Your task to perform on an android device: search for 2021 honda civic Image 0: 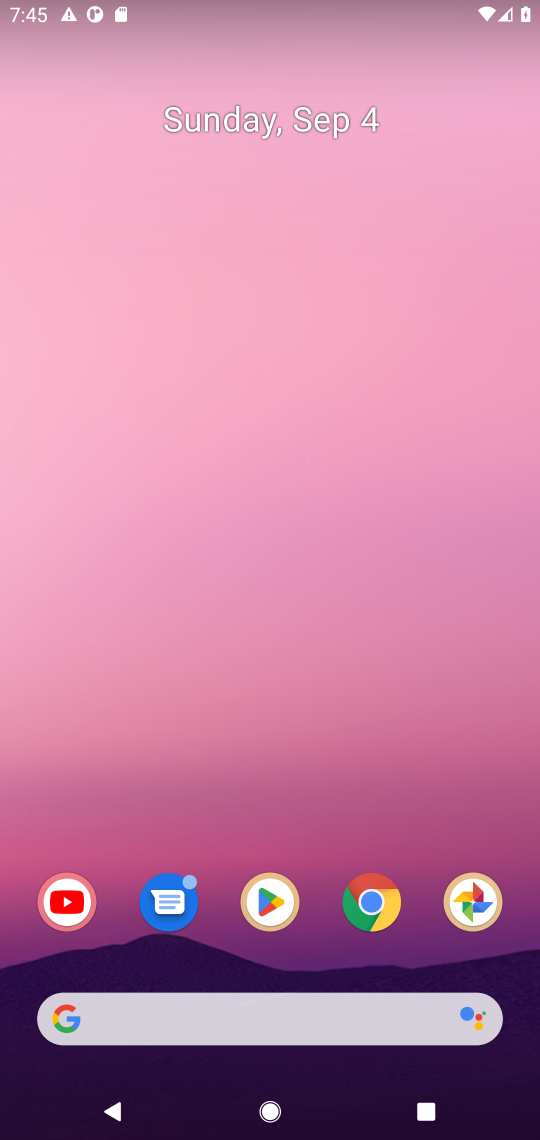
Step 0: click (347, 921)
Your task to perform on an android device: search for 2021 honda civic Image 1: 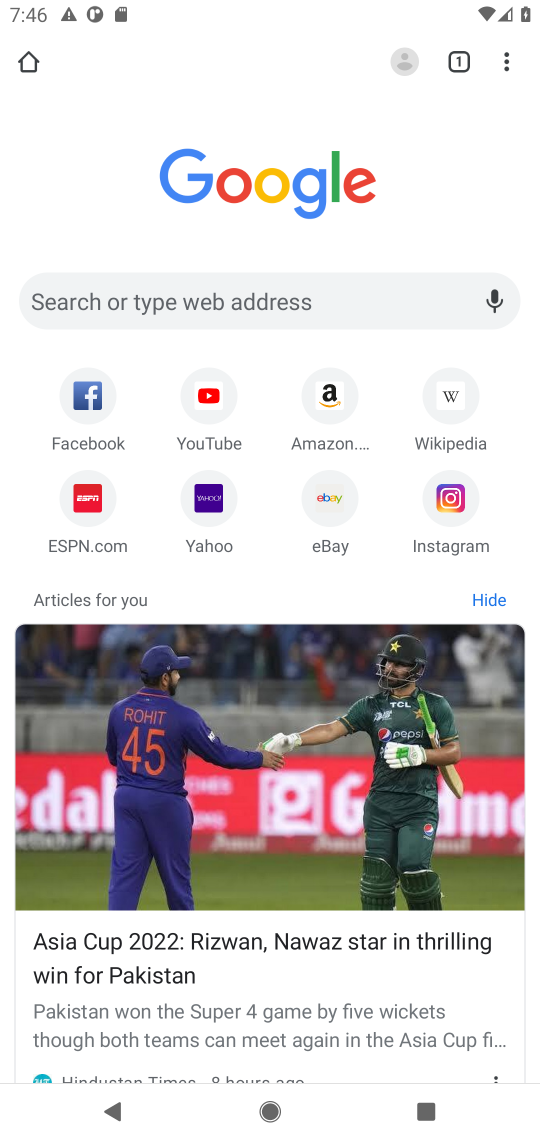
Step 1: click (349, 503)
Your task to perform on an android device: search for 2021 honda civic Image 2: 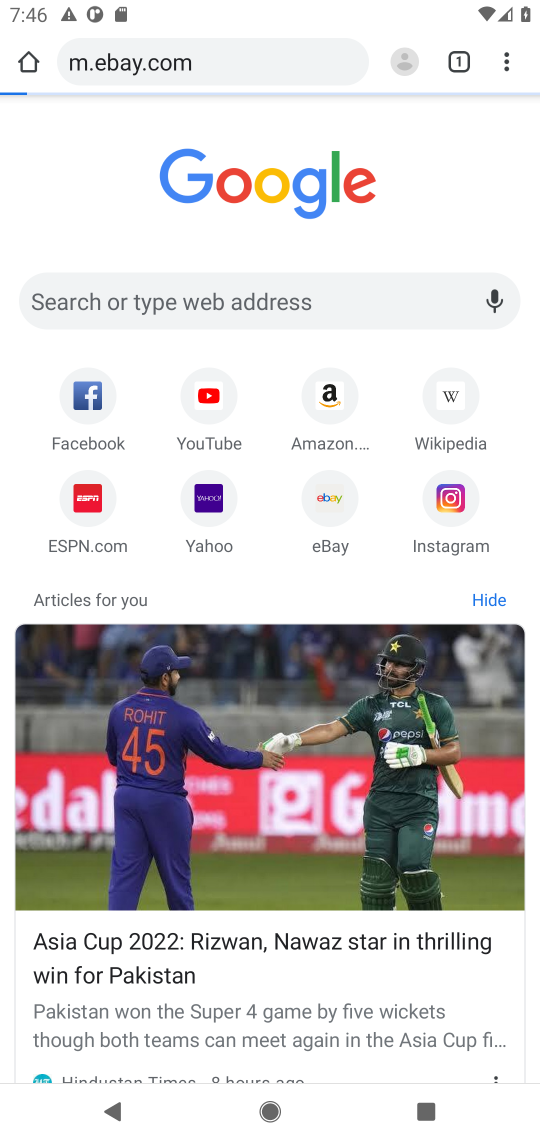
Step 2: task complete